Your task to perform on an android device: Open eBay Image 0: 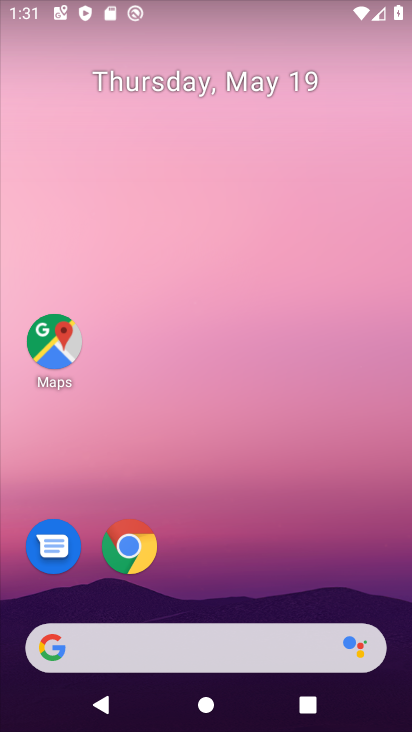
Step 0: click (129, 548)
Your task to perform on an android device: Open eBay Image 1: 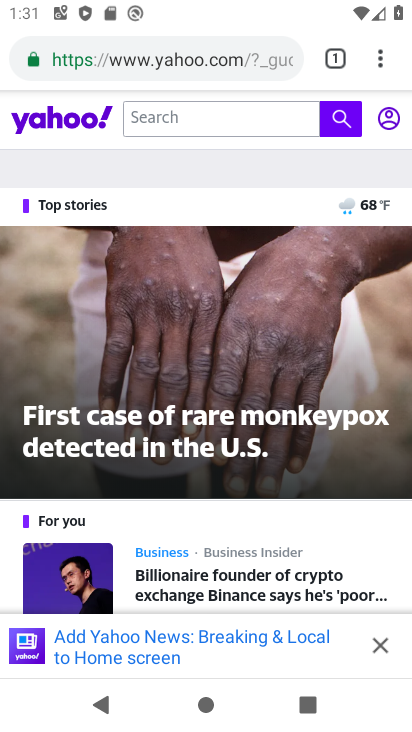
Step 1: click (176, 68)
Your task to perform on an android device: Open eBay Image 2: 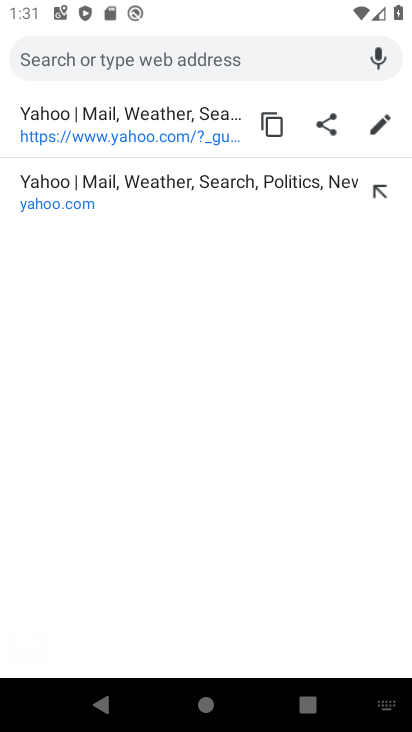
Step 2: type "eBay"
Your task to perform on an android device: Open eBay Image 3: 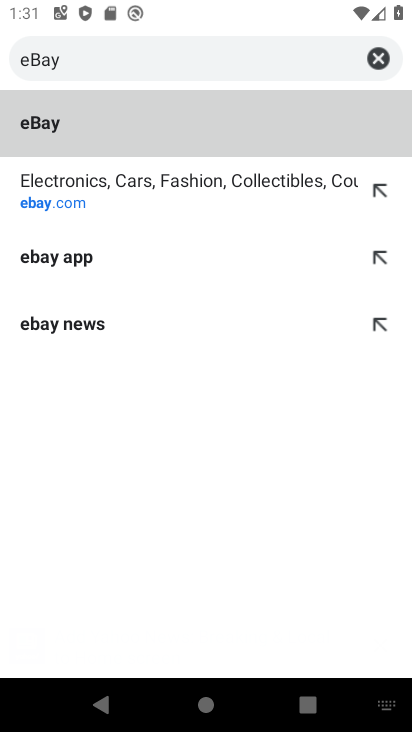
Step 3: click (140, 126)
Your task to perform on an android device: Open eBay Image 4: 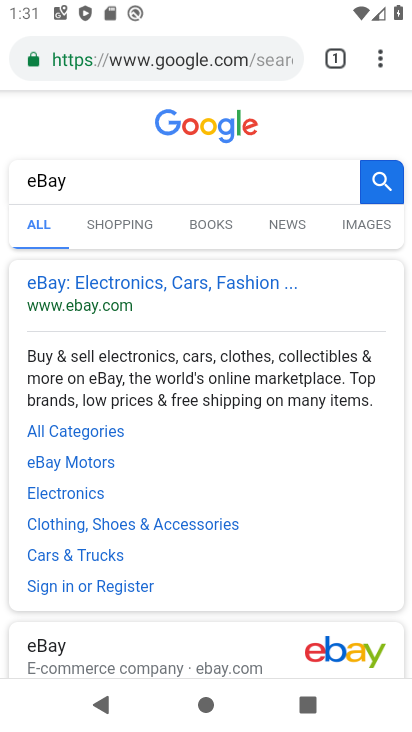
Step 4: task complete